Your task to perform on an android device: Open maps Image 0: 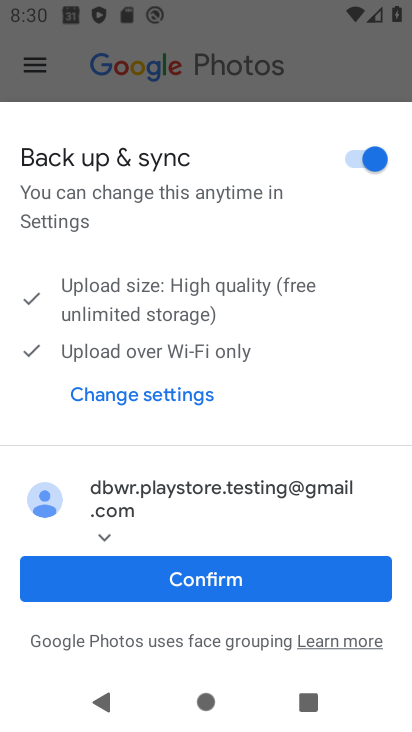
Step 0: press home button
Your task to perform on an android device: Open maps Image 1: 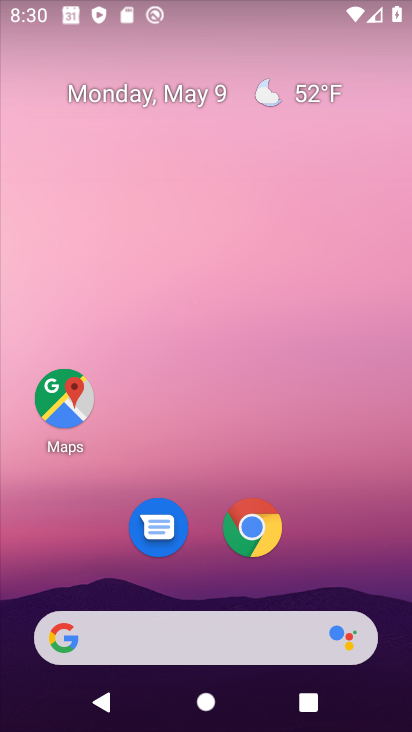
Step 1: click (71, 392)
Your task to perform on an android device: Open maps Image 2: 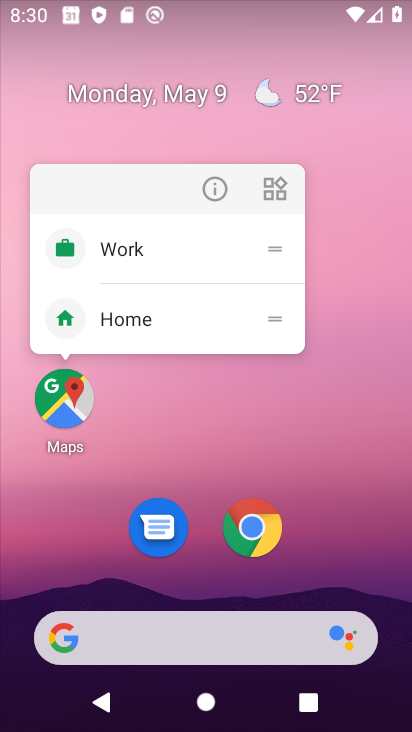
Step 2: click (66, 400)
Your task to perform on an android device: Open maps Image 3: 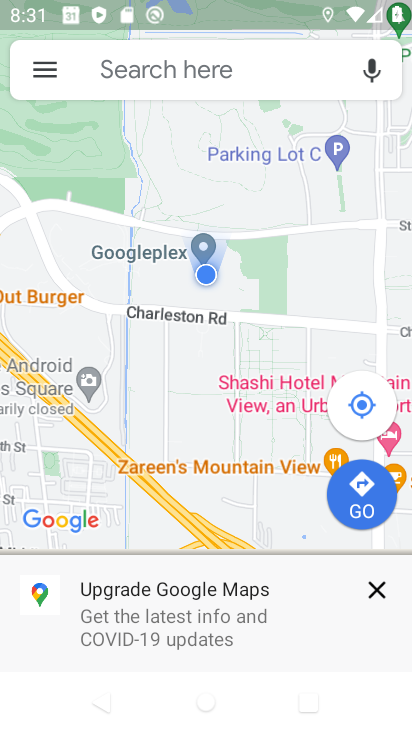
Step 3: task complete